Your task to perform on an android device: Go to Reddit.com Image 0: 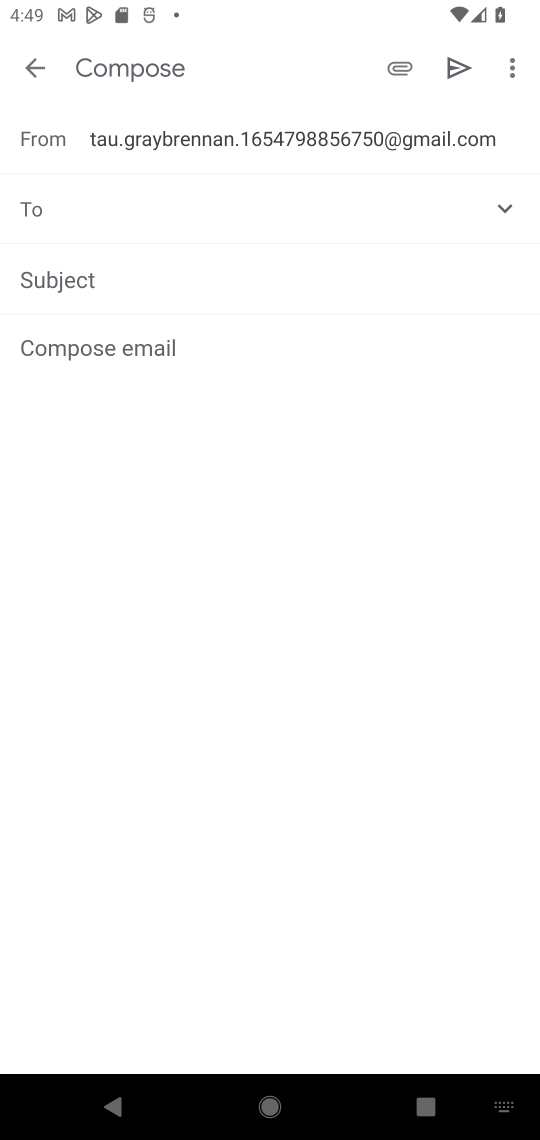
Step 0: press home button
Your task to perform on an android device: Go to Reddit.com Image 1: 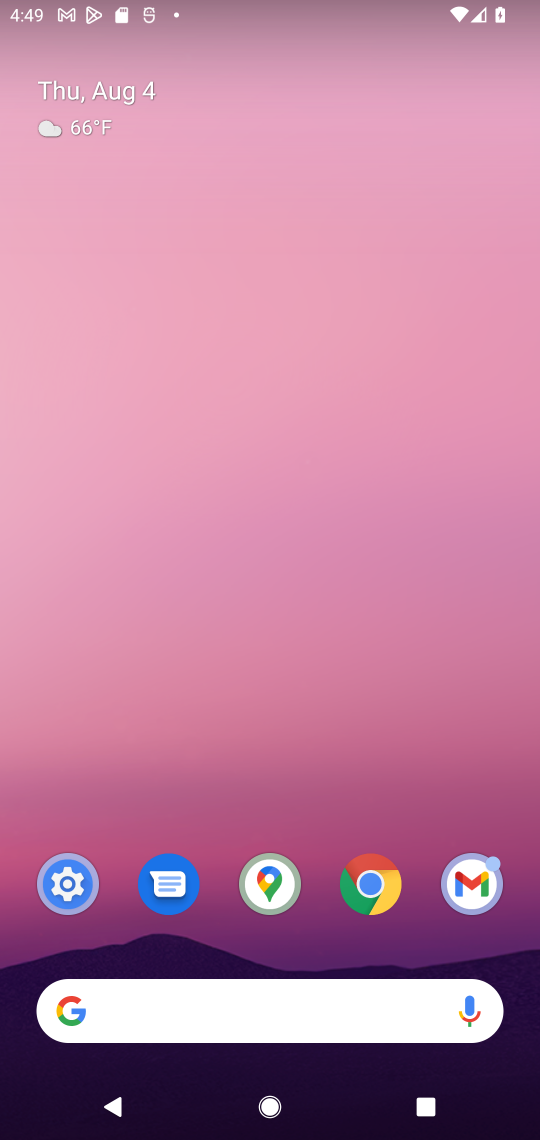
Step 1: click (74, 896)
Your task to perform on an android device: Go to Reddit.com Image 2: 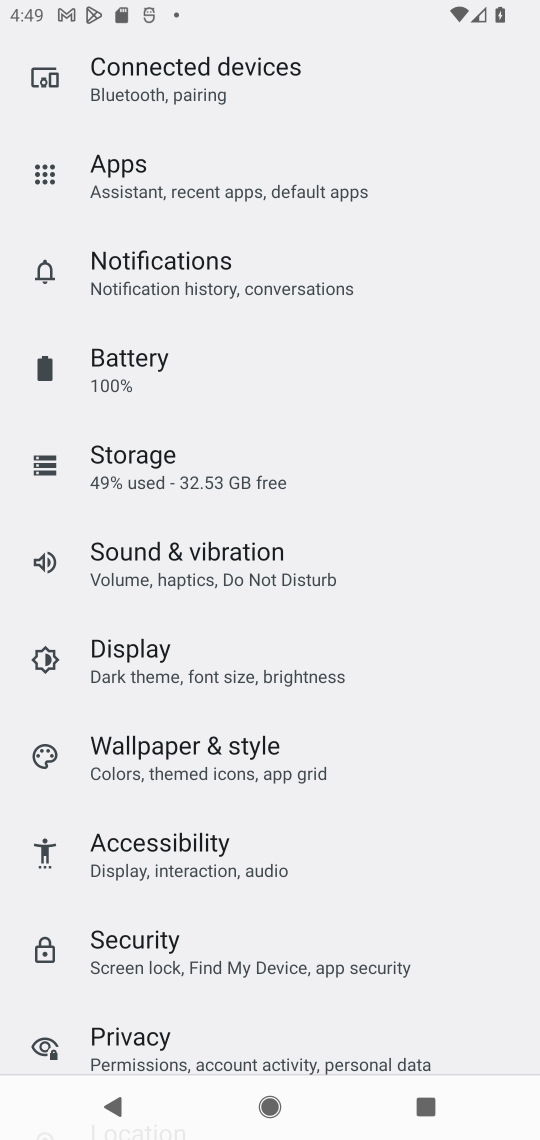
Step 2: press home button
Your task to perform on an android device: Go to Reddit.com Image 3: 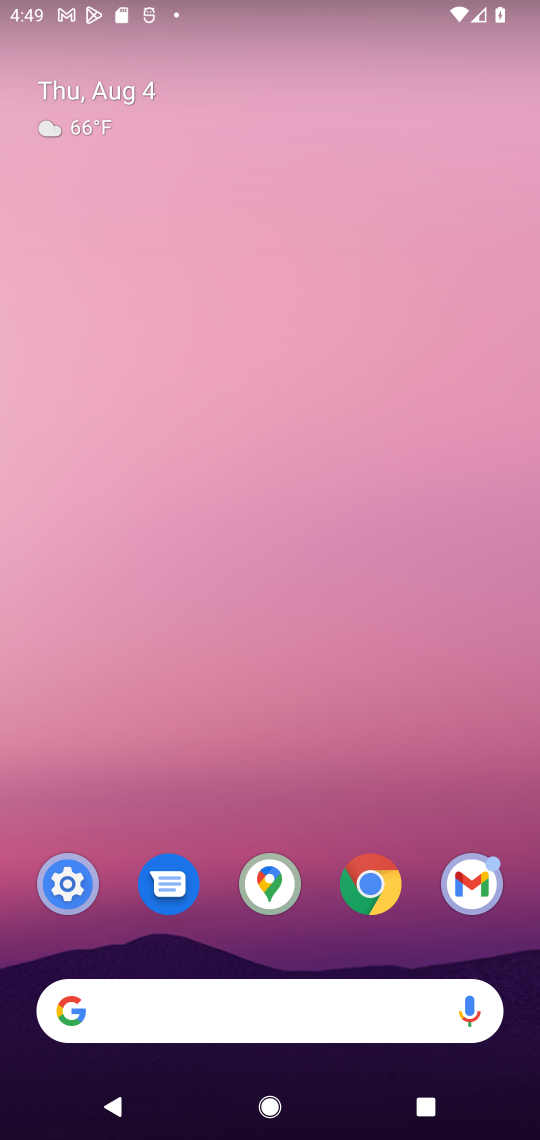
Step 3: click (356, 858)
Your task to perform on an android device: Go to Reddit.com Image 4: 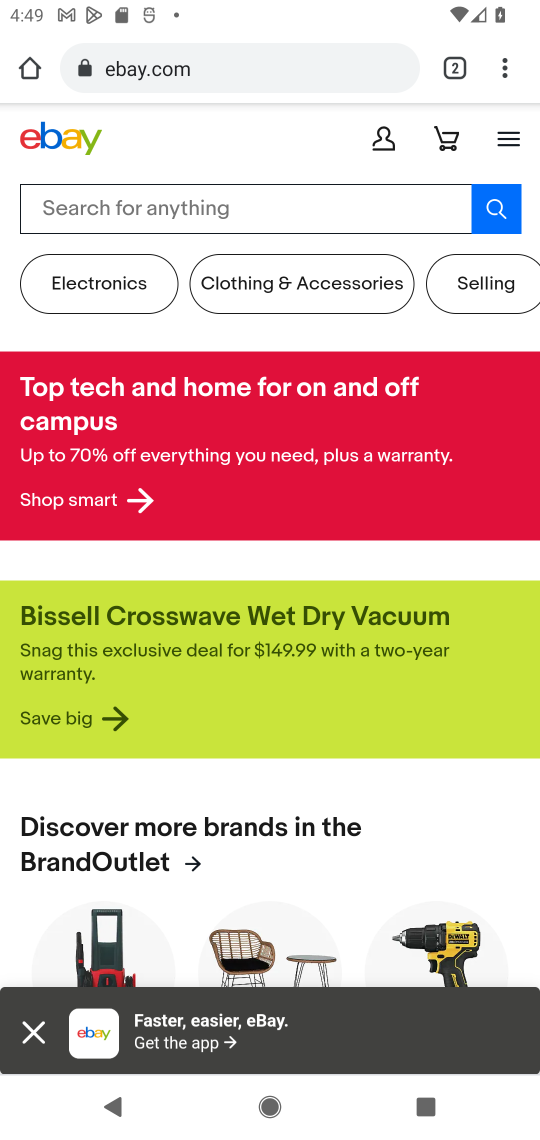
Step 4: click (238, 50)
Your task to perform on an android device: Go to Reddit.com Image 5: 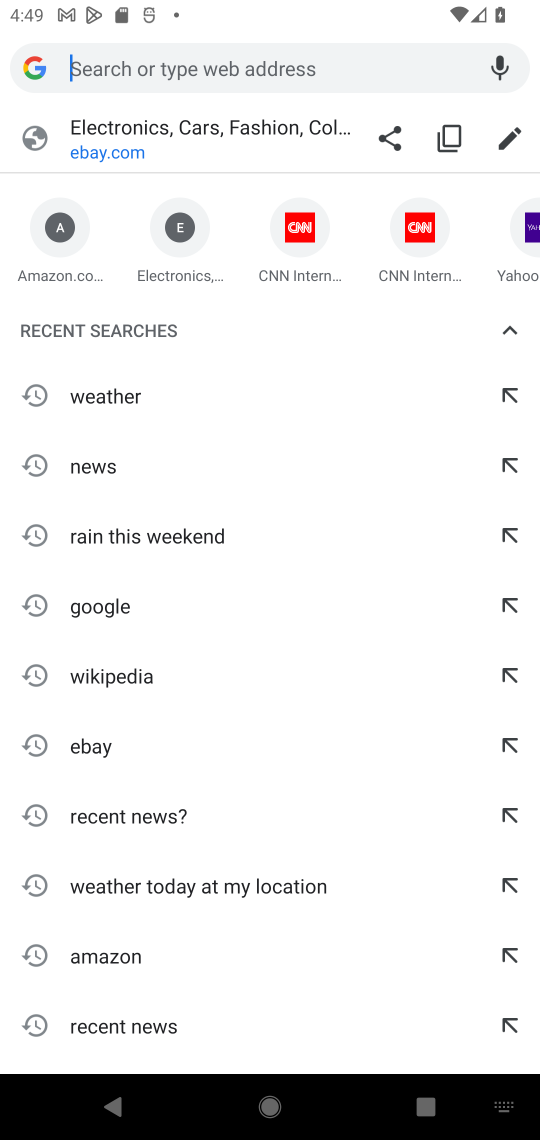
Step 5: type "reddit"
Your task to perform on an android device: Go to Reddit.com Image 6: 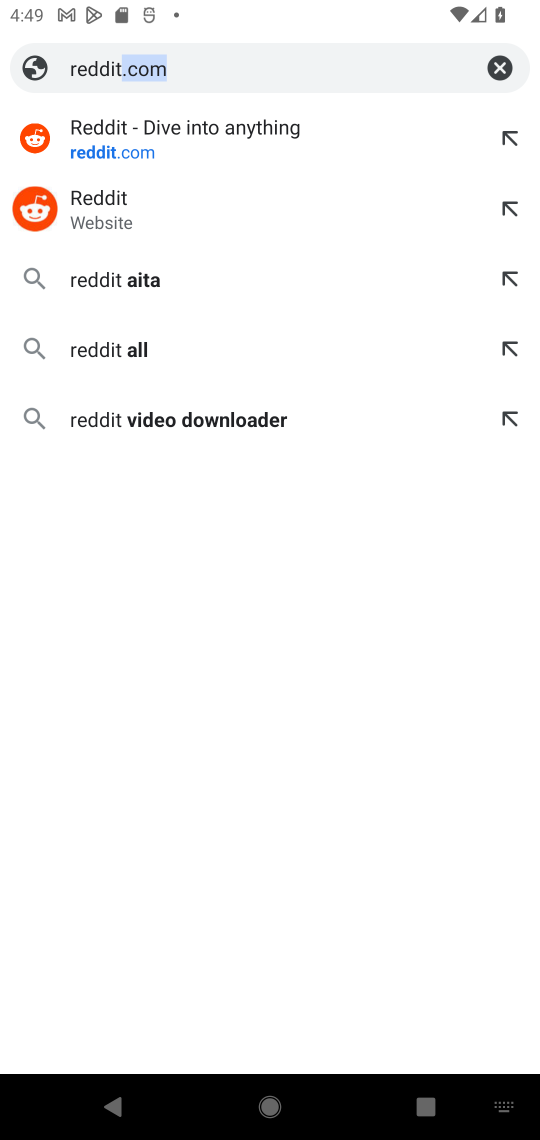
Step 6: click (285, 125)
Your task to perform on an android device: Go to Reddit.com Image 7: 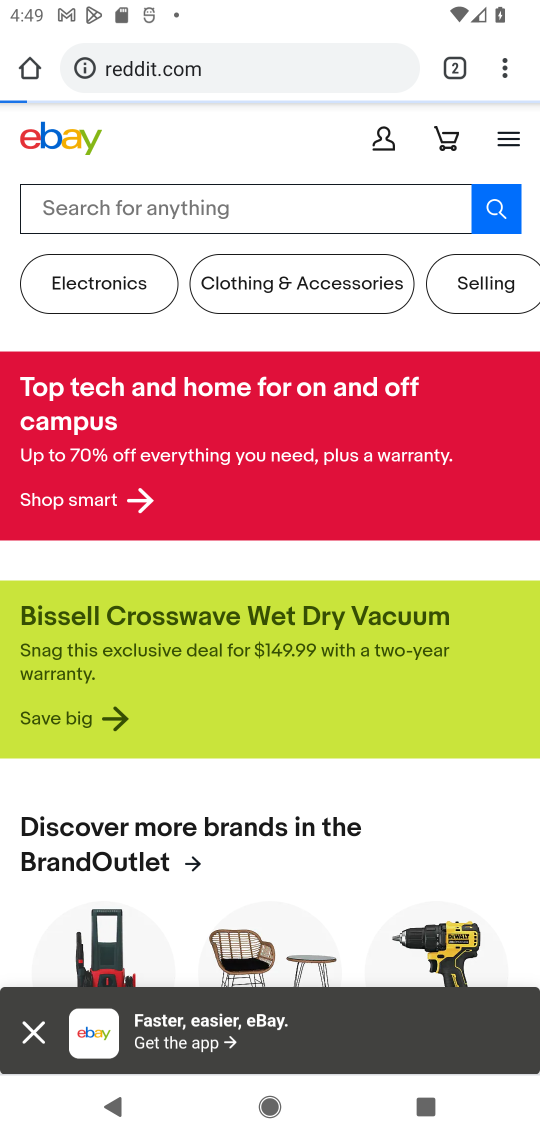
Step 7: task complete